Your task to perform on an android device: Go to Google maps Image 0: 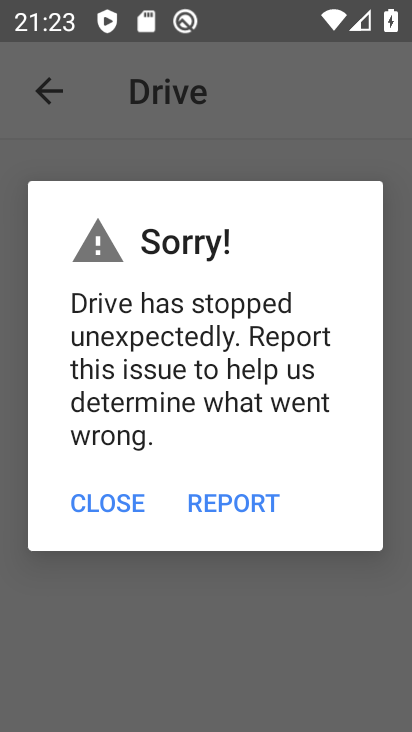
Step 0: press home button
Your task to perform on an android device: Go to Google maps Image 1: 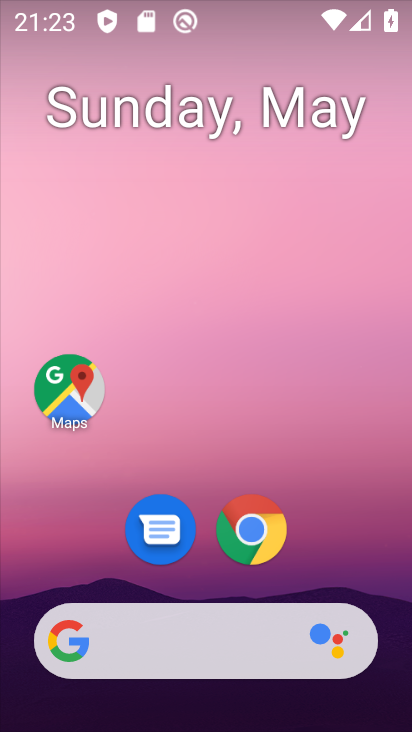
Step 1: click (61, 389)
Your task to perform on an android device: Go to Google maps Image 2: 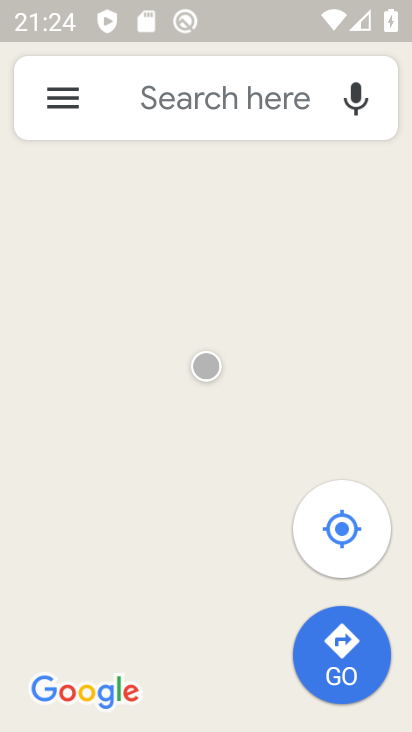
Step 2: task complete